Your task to perform on an android device: snooze an email in the gmail app Image 0: 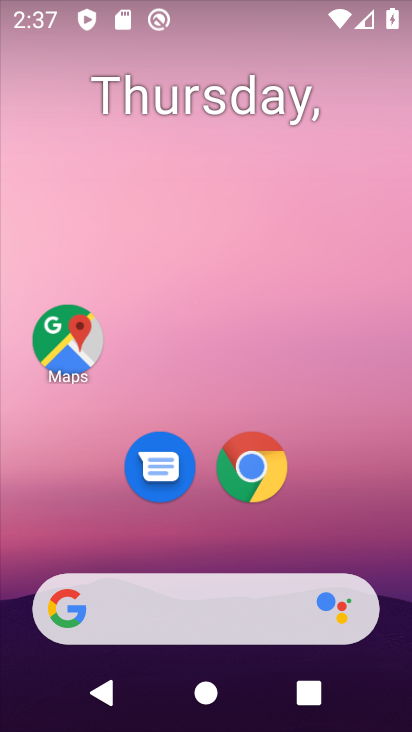
Step 0: drag from (224, 606) to (260, 5)
Your task to perform on an android device: snooze an email in the gmail app Image 1: 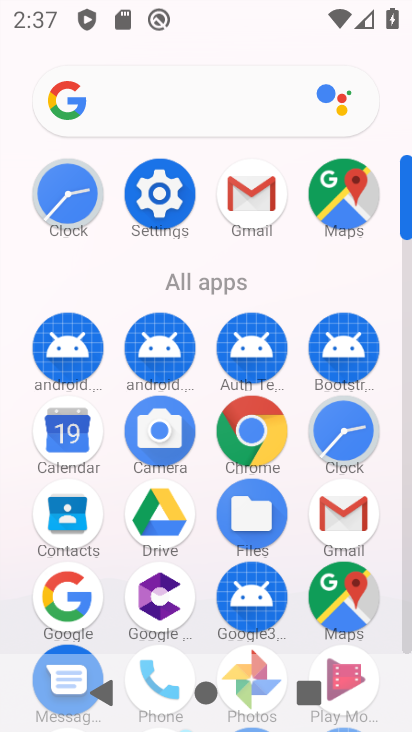
Step 1: click (254, 196)
Your task to perform on an android device: snooze an email in the gmail app Image 2: 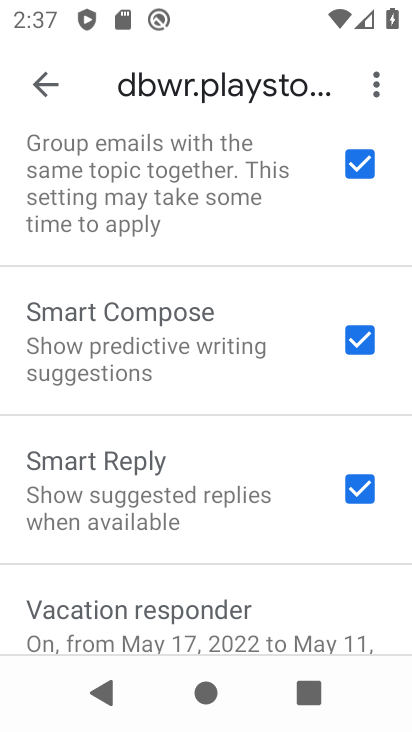
Step 2: click (51, 102)
Your task to perform on an android device: snooze an email in the gmail app Image 3: 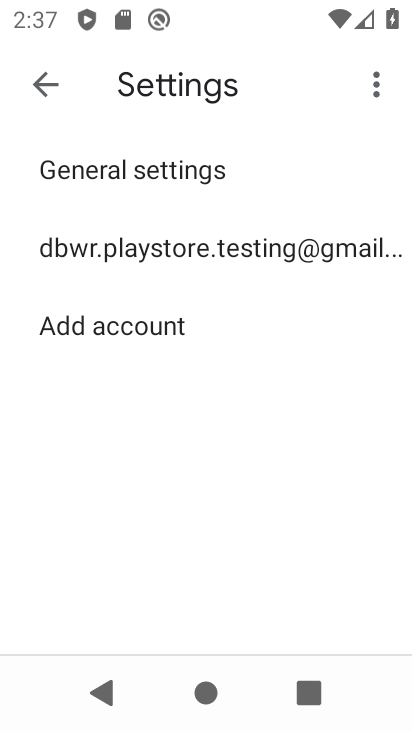
Step 3: click (51, 102)
Your task to perform on an android device: snooze an email in the gmail app Image 4: 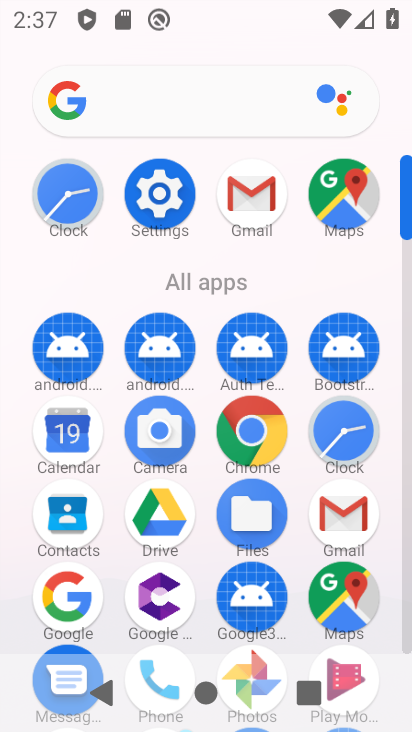
Step 4: click (244, 180)
Your task to perform on an android device: snooze an email in the gmail app Image 5: 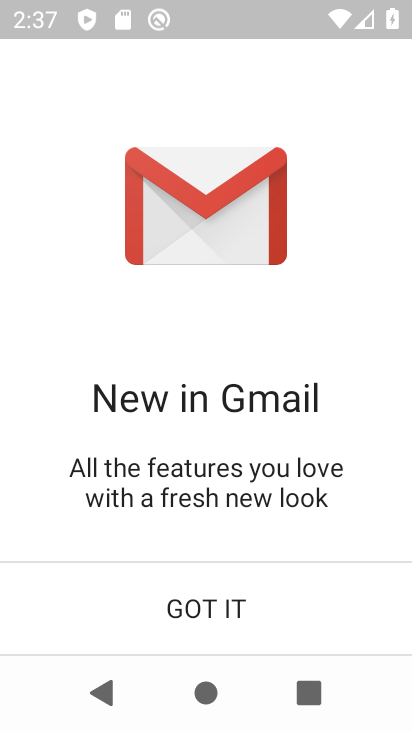
Step 5: click (322, 628)
Your task to perform on an android device: snooze an email in the gmail app Image 6: 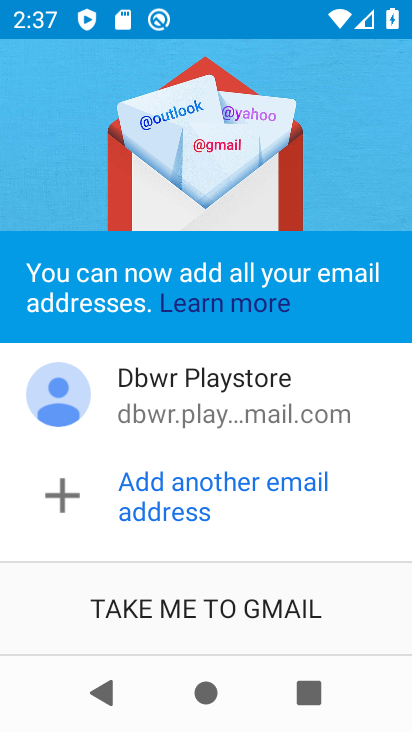
Step 6: click (322, 628)
Your task to perform on an android device: snooze an email in the gmail app Image 7: 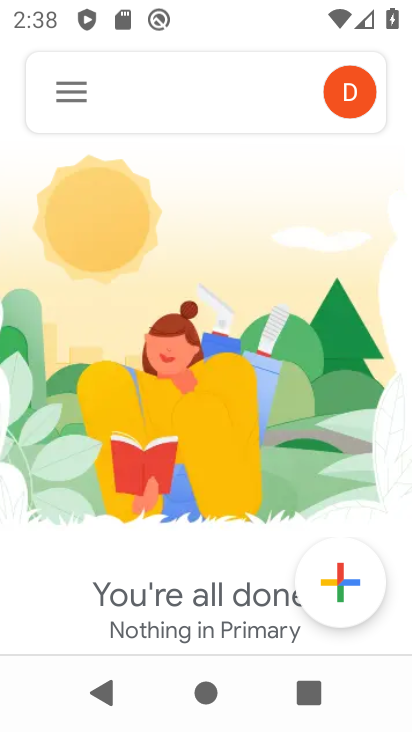
Step 7: click (66, 96)
Your task to perform on an android device: snooze an email in the gmail app Image 8: 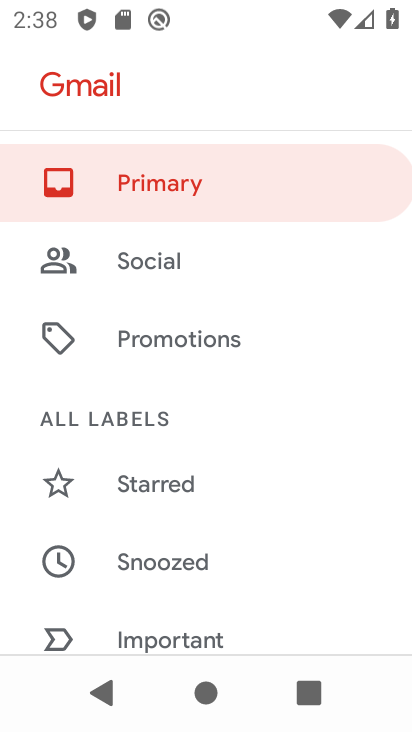
Step 8: drag from (139, 569) to (154, 9)
Your task to perform on an android device: snooze an email in the gmail app Image 9: 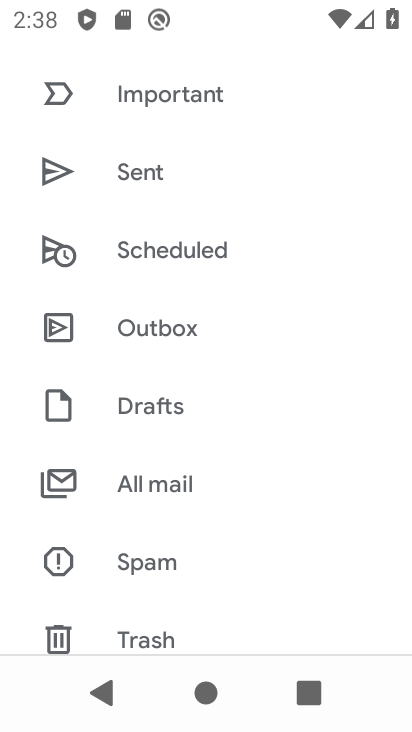
Step 9: click (142, 497)
Your task to perform on an android device: snooze an email in the gmail app Image 10: 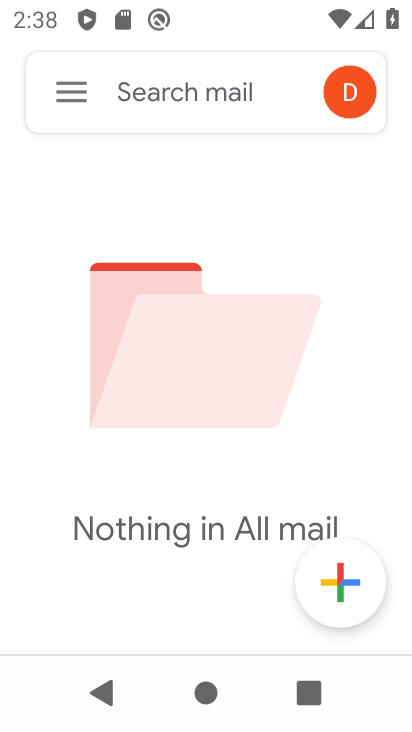
Step 10: task complete